Your task to perform on an android device: Search for seafood restaurants on Google Maps Image 0: 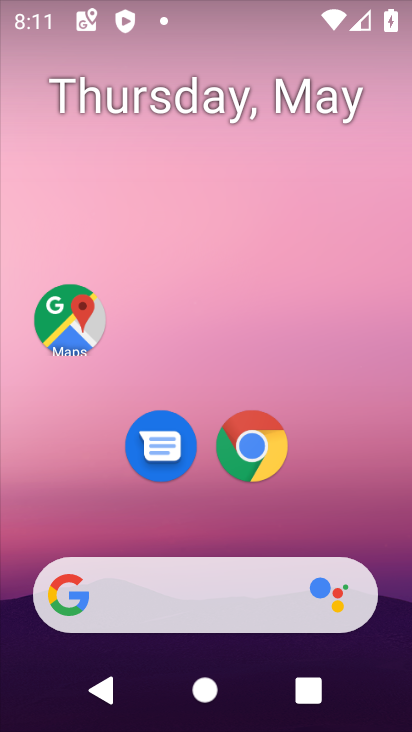
Step 0: drag from (339, 504) to (363, 232)
Your task to perform on an android device: Search for seafood restaurants on Google Maps Image 1: 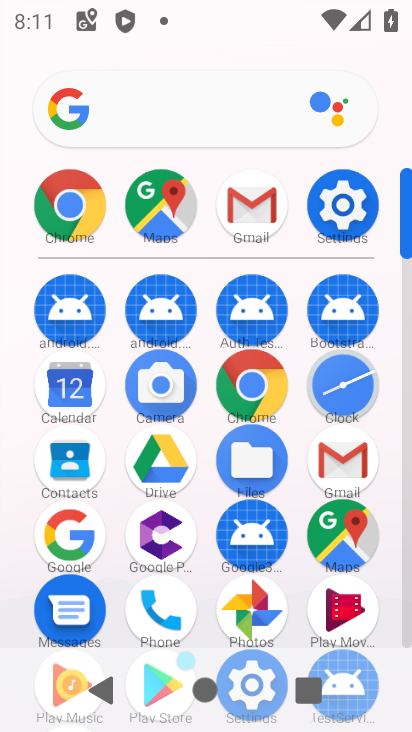
Step 1: click (358, 529)
Your task to perform on an android device: Search for seafood restaurants on Google Maps Image 2: 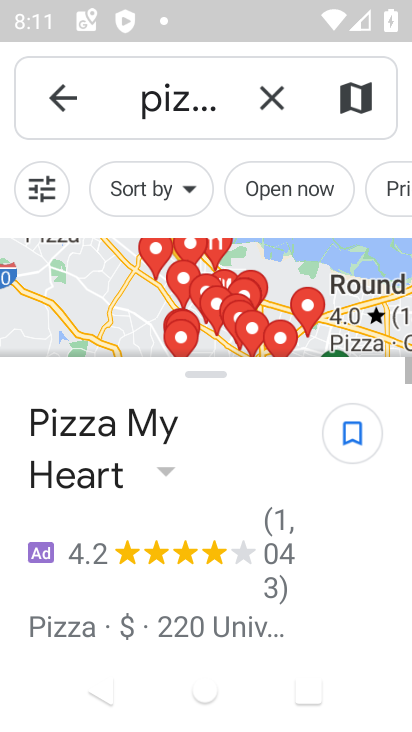
Step 2: click (287, 106)
Your task to perform on an android device: Search for seafood restaurants on Google Maps Image 3: 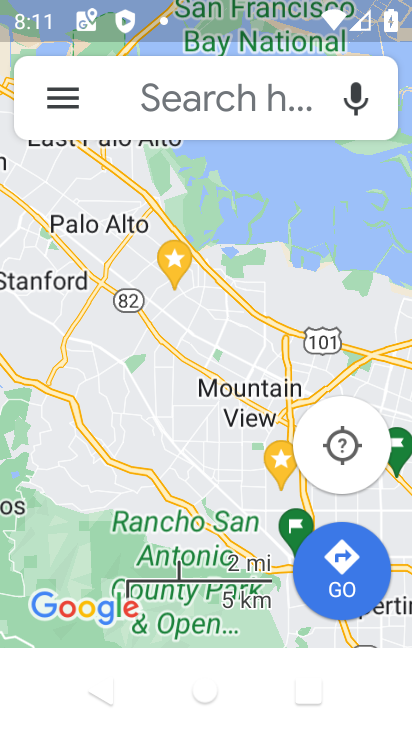
Step 3: click (204, 98)
Your task to perform on an android device: Search for seafood restaurants on Google Maps Image 4: 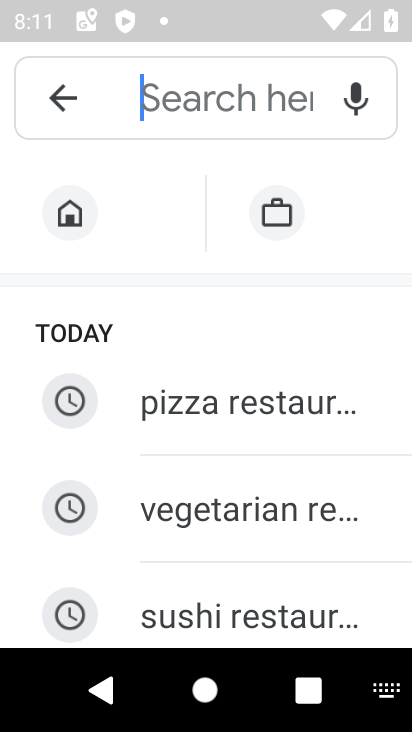
Step 4: type "seafood restaurants"
Your task to perform on an android device: Search for seafood restaurants on Google Maps Image 5: 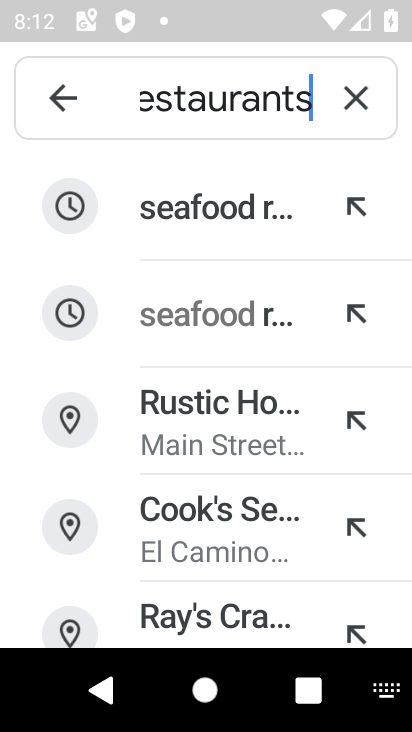
Step 5: click (211, 222)
Your task to perform on an android device: Search for seafood restaurants on Google Maps Image 6: 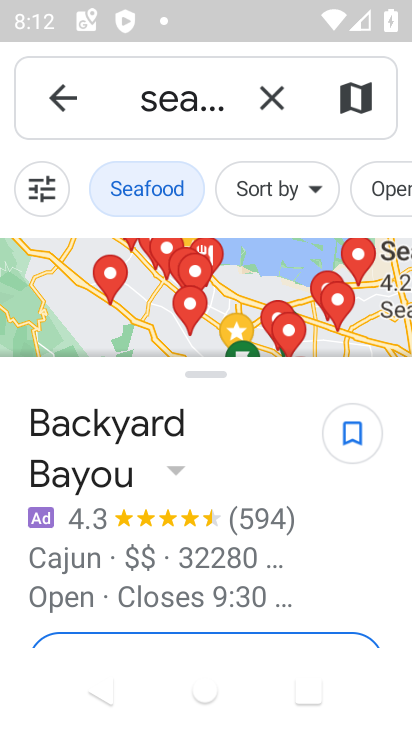
Step 6: task complete